Your task to perform on an android device: View the shopping cart on ebay. Search for usb-c to usb-b on ebay, select the first entry, and add it to the cart. Image 0: 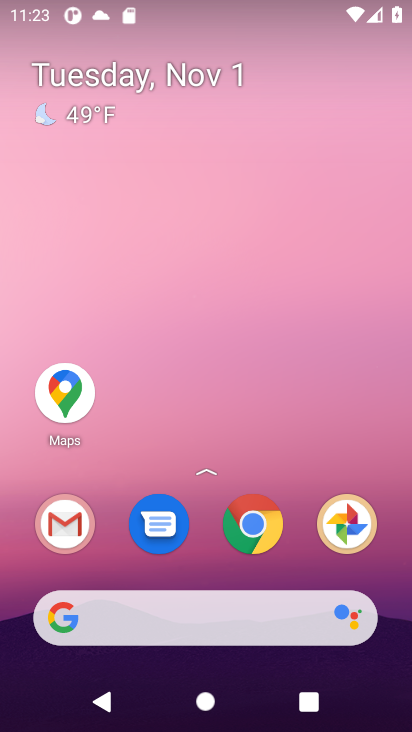
Step 0: press home button
Your task to perform on an android device: View the shopping cart on ebay. Search for usb-c to usb-b on ebay, select the first entry, and add it to the cart. Image 1: 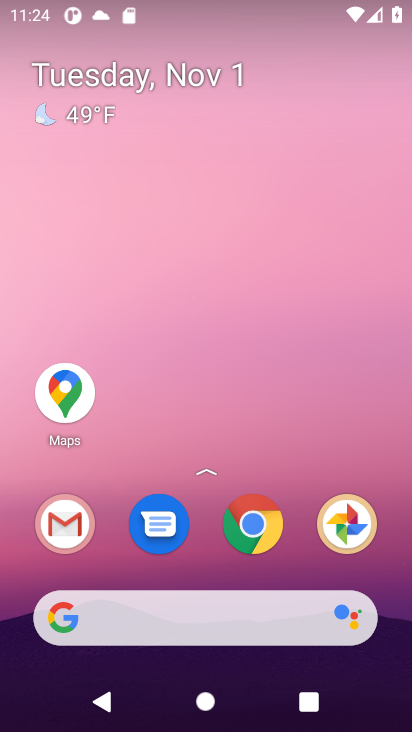
Step 1: click (94, 613)
Your task to perform on an android device: View the shopping cart on ebay. Search for usb-c to usb-b on ebay, select the first entry, and add it to the cart. Image 2: 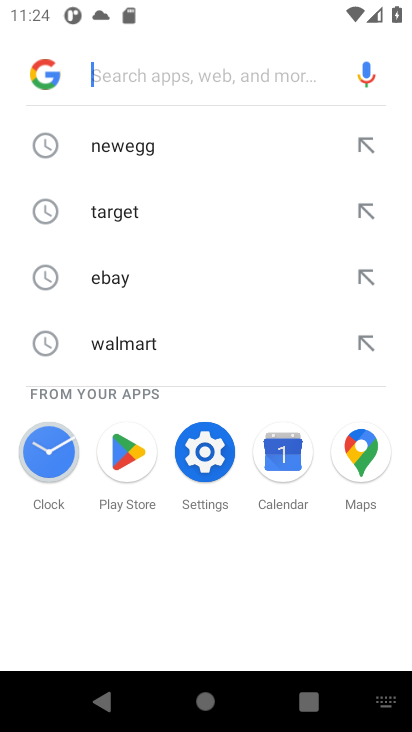
Step 2: click (133, 271)
Your task to perform on an android device: View the shopping cart on ebay. Search for usb-c to usb-b on ebay, select the first entry, and add it to the cart. Image 3: 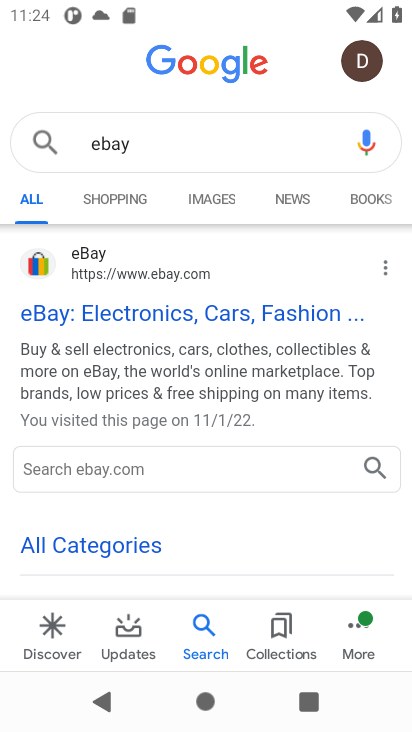
Step 3: click (133, 307)
Your task to perform on an android device: View the shopping cart on ebay. Search for usb-c to usb-b on ebay, select the first entry, and add it to the cart. Image 4: 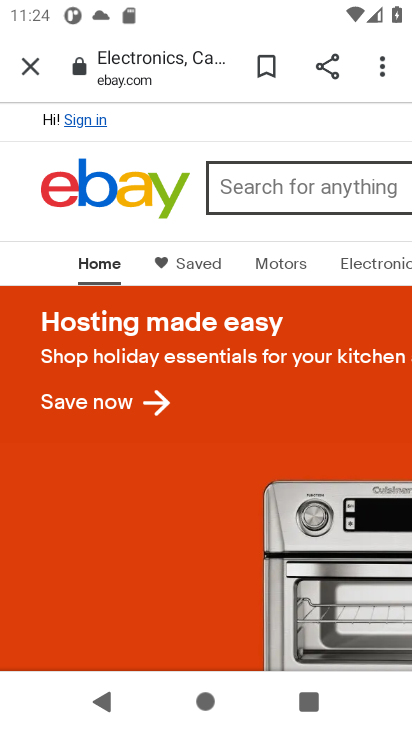
Step 4: drag from (340, 222) to (31, 235)
Your task to perform on an android device: View the shopping cart on ebay. Search for usb-c to usb-b on ebay, select the first entry, and add it to the cart. Image 5: 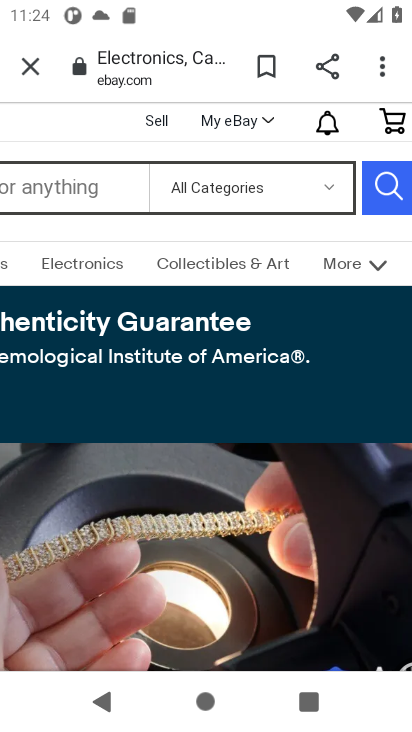
Step 5: drag from (332, 231) to (19, 244)
Your task to perform on an android device: View the shopping cart on ebay. Search for usb-c to usb-b on ebay, select the first entry, and add it to the cart. Image 6: 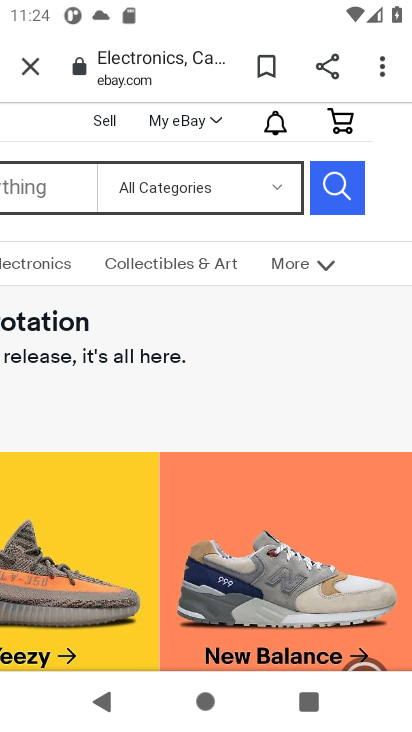
Step 6: click (341, 125)
Your task to perform on an android device: View the shopping cart on ebay. Search for usb-c to usb-b on ebay, select the first entry, and add it to the cart. Image 7: 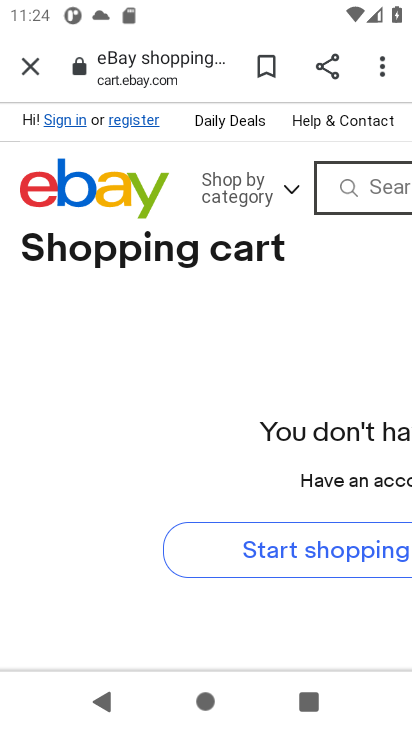
Step 7: click (347, 194)
Your task to perform on an android device: View the shopping cart on ebay. Search for usb-c to usb-b on ebay, select the first entry, and add it to the cart. Image 8: 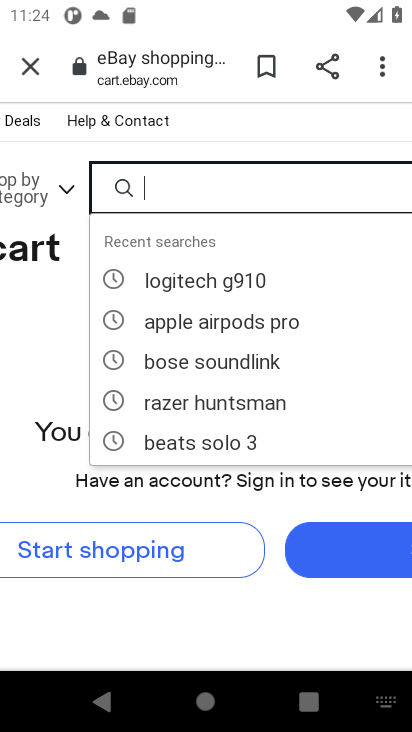
Step 8: type "usb-c to usb-b"
Your task to perform on an android device: View the shopping cart on ebay. Search for usb-c to usb-b on ebay, select the first entry, and add it to the cart. Image 9: 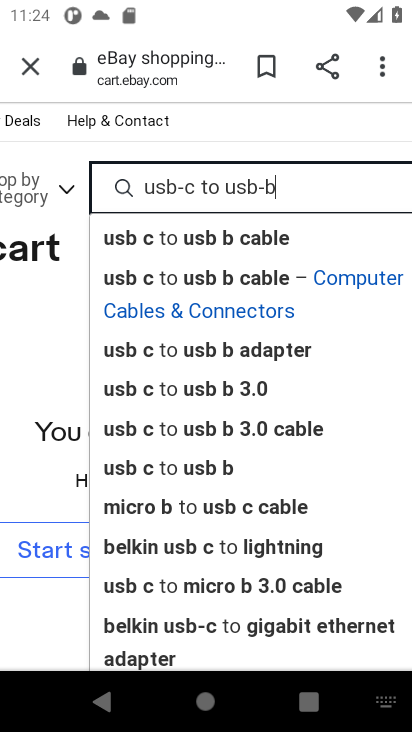
Step 9: press enter
Your task to perform on an android device: View the shopping cart on ebay. Search for usb-c to usb-b on ebay, select the first entry, and add it to the cart. Image 10: 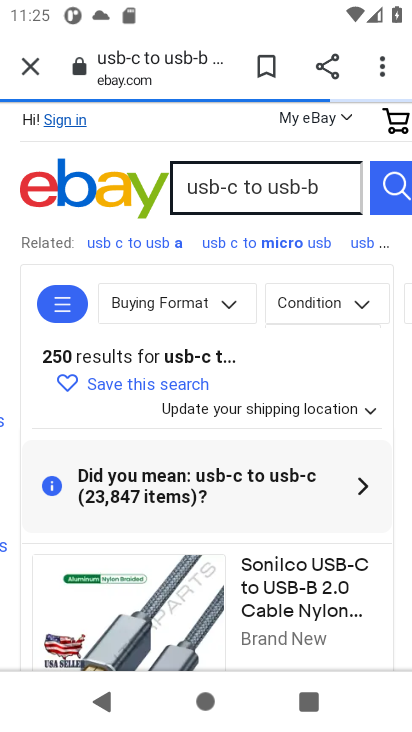
Step 10: drag from (264, 601) to (273, 436)
Your task to perform on an android device: View the shopping cart on ebay. Search for usb-c to usb-b on ebay, select the first entry, and add it to the cart. Image 11: 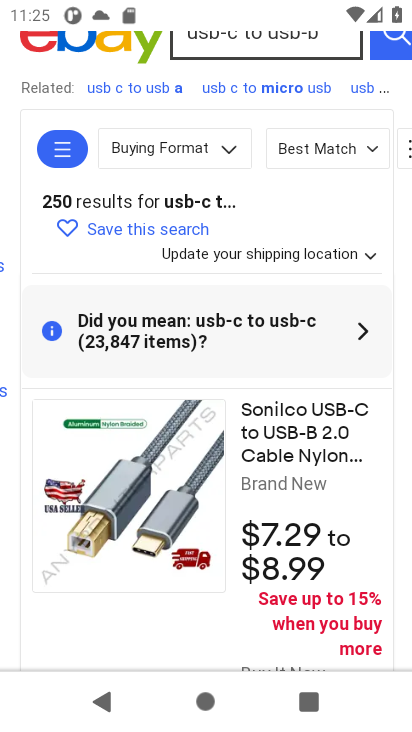
Step 11: drag from (278, 565) to (278, 310)
Your task to perform on an android device: View the shopping cart on ebay. Search for usb-c to usb-b on ebay, select the first entry, and add it to the cart. Image 12: 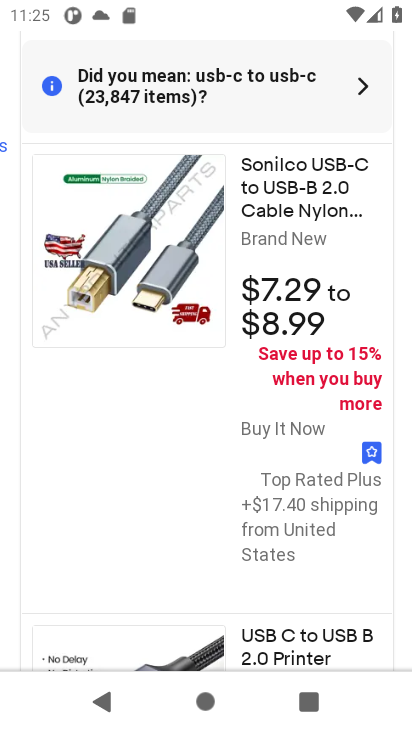
Step 12: click (262, 221)
Your task to perform on an android device: View the shopping cart on ebay. Search for usb-c to usb-b on ebay, select the first entry, and add it to the cart. Image 13: 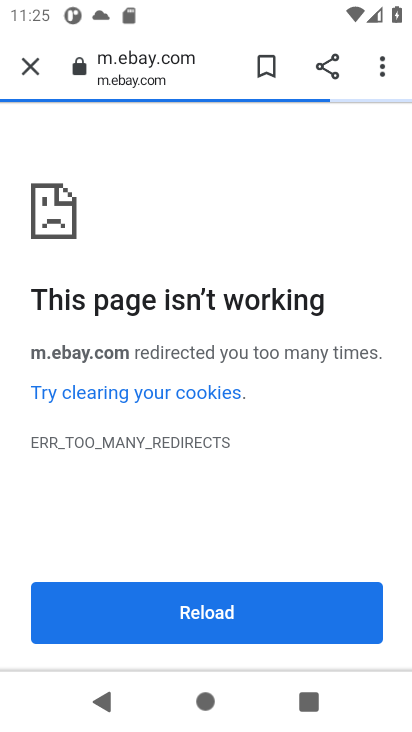
Step 13: task complete